Your task to perform on an android device: Is it going to rain this weekend? Image 0: 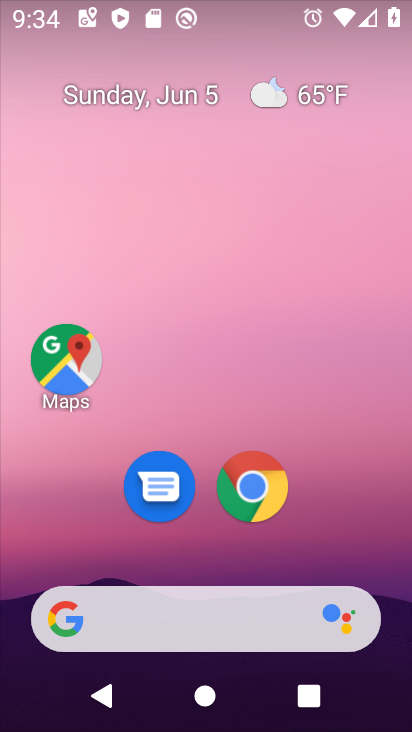
Step 0: drag from (336, 511) to (367, 115)
Your task to perform on an android device: Is it going to rain this weekend? Image 1: 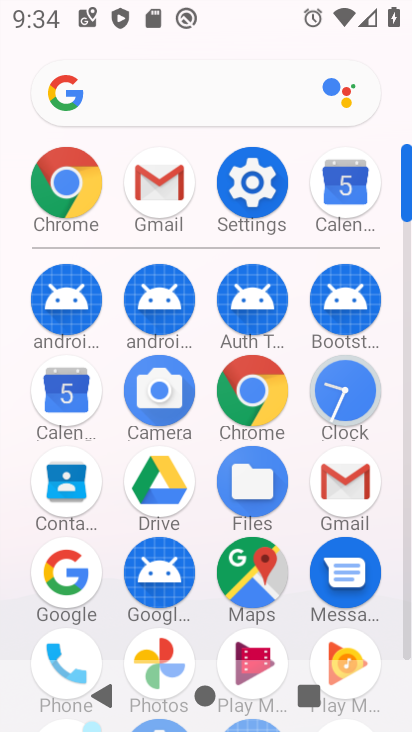
Step 1: click (253, 381)
Your task to perform on an android device: Is it going to rain this weekend? Image 2: 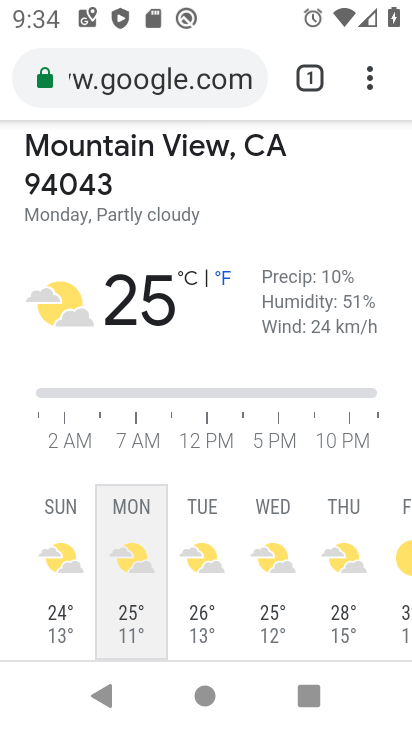
Step 2: click (217, 73)
Your task to perform on an android device: Is it going to rain this weekend? Image 3: 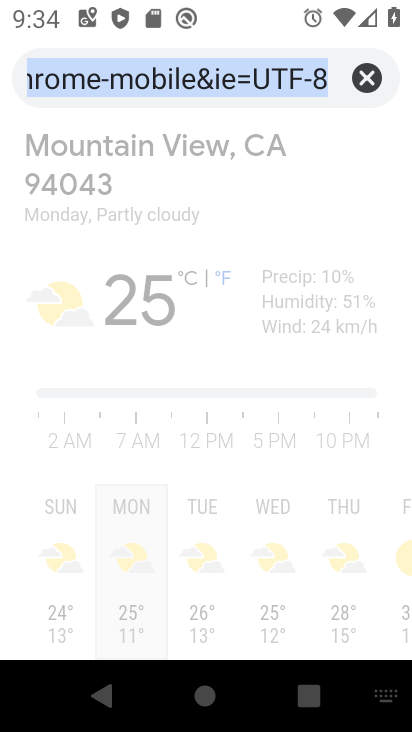
Step 3: click (376, 84)
Your task to perform on an android device: Is it going to rain this weekend? Image 4: 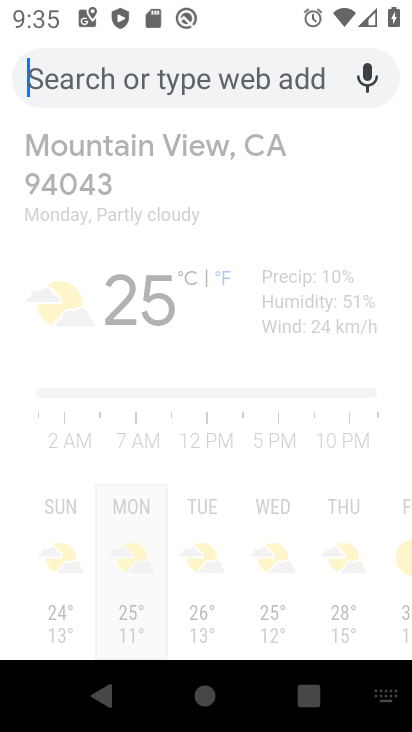
Step 4: type "is it going to rain this weekend "
Your task to perform on an android device: Is it going to rain this weekend? Image 5: 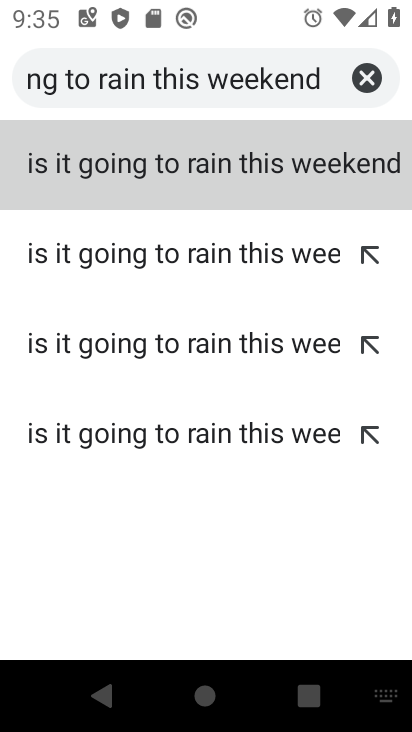
Step 5: click (177, 167)
Your task to perform on an android device: Is it going to rain this weekend? Image 6: 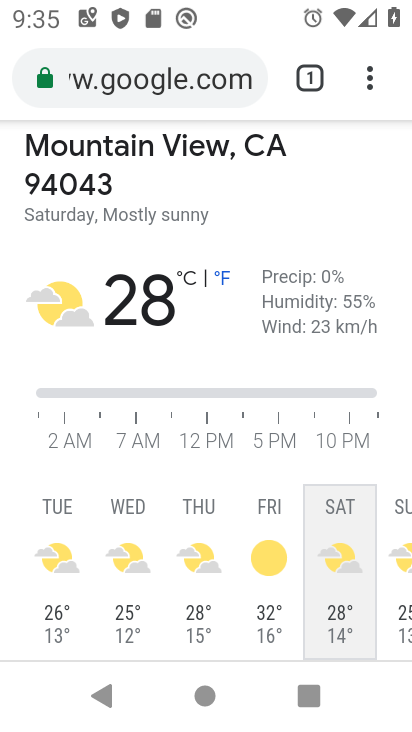
Step 6: task complete